Your task to perform on an android device: open a bookmark in the chrome app Image 0: 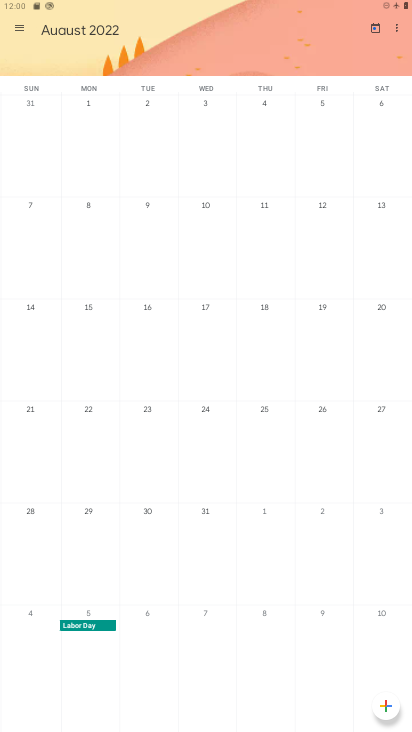
Step 0: press home button
Your task to perform on an android device: open a bookmark in the chrome app Image 1: 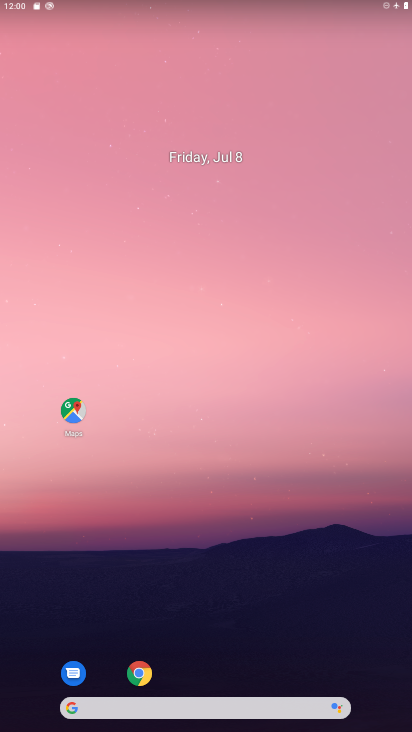
Step 1: click (256, 582)
Your task to perform on an android device: open a bookmark in the chrome app Image 2: 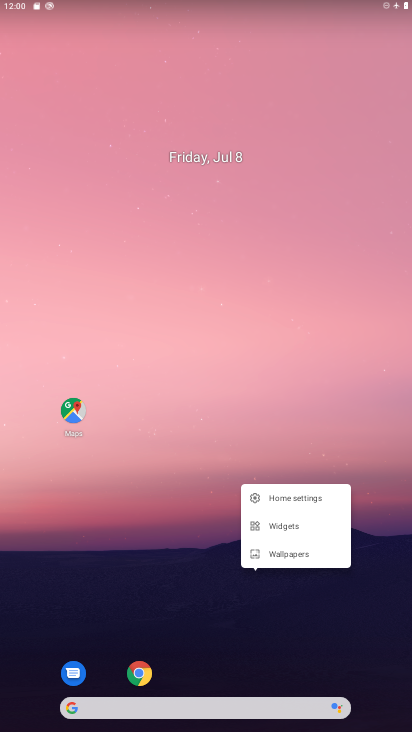
Step 2: click (140, 678)
Your task to perform on an android device: open a bookmark in the chrome app Image 3: 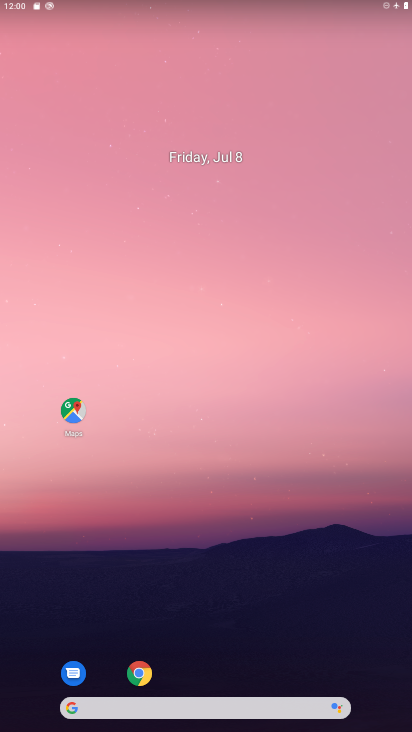
Step 3: click (140, 678)
Your task to perform on an android device: open a bookmark in the chrome app Image 4: 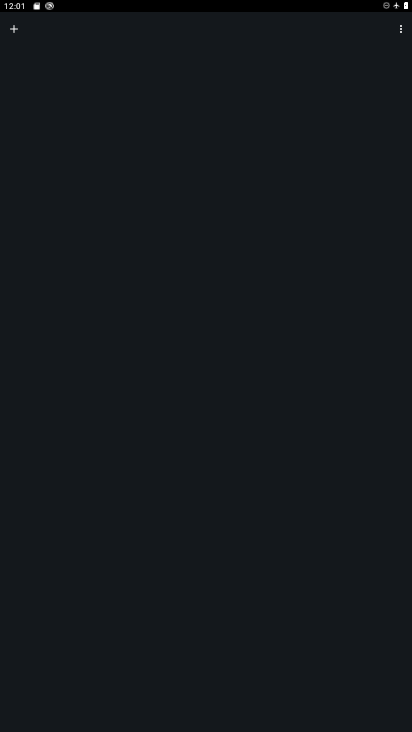
Step 4: click (401, 35)
Your task to perform on an android device: open a bookmark in the chrome app Image 5: 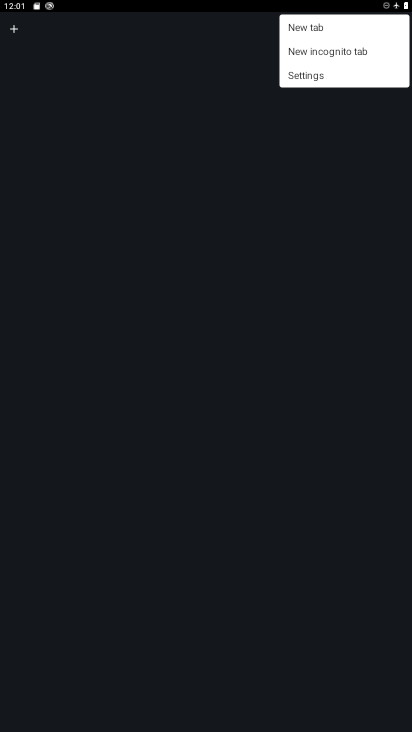
Step 5: click (317, 79)
Your task to perform on an android device: open a bookmark in the chrome app Image 6: 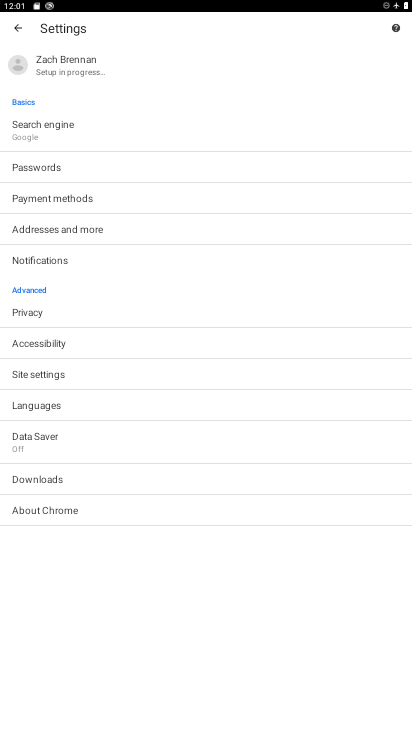
Step 6: click (18, 29)
Your task to perform on an android device: open a bookmark in the chrome app Image 7: 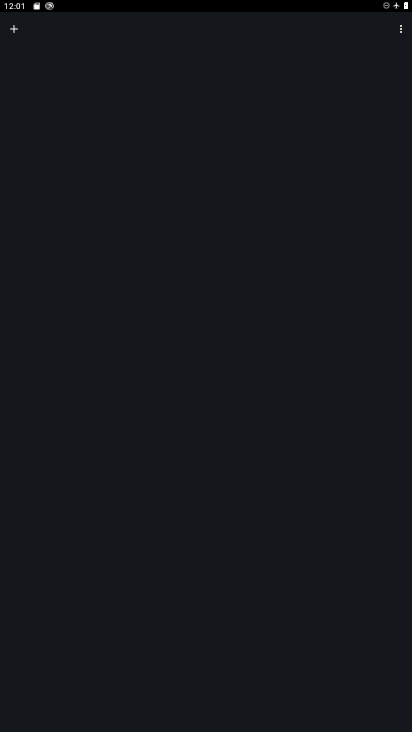
Step 7: click (14, 31)
Your task to perform on an android device: open a bookmark in the chrome app Image 8: 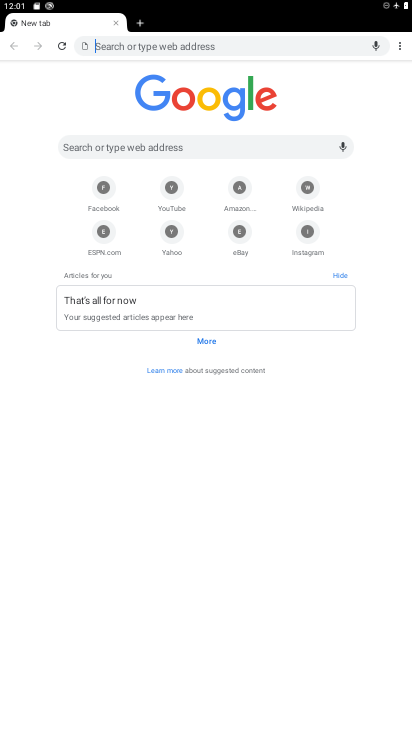
Step 8: click (401, 47)
Your task to perform on an android device: open a bookmark in the chrome app Image 9: 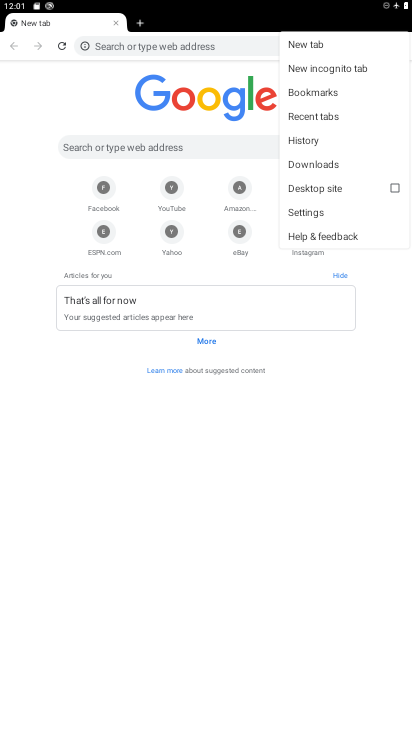
Step 9: click (310, 91)
Your task to perform on an android device: open a bookmark in the chrome app Image 10: 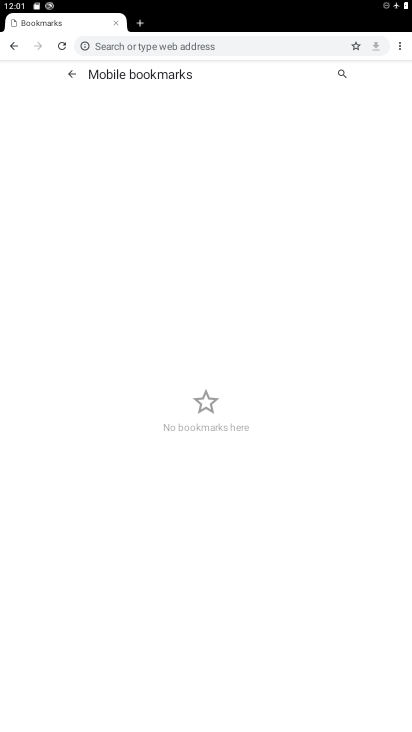
Step 10: task complete